Your task to perform on an android device: Open Youtube and go to "Your channel" Image 0: 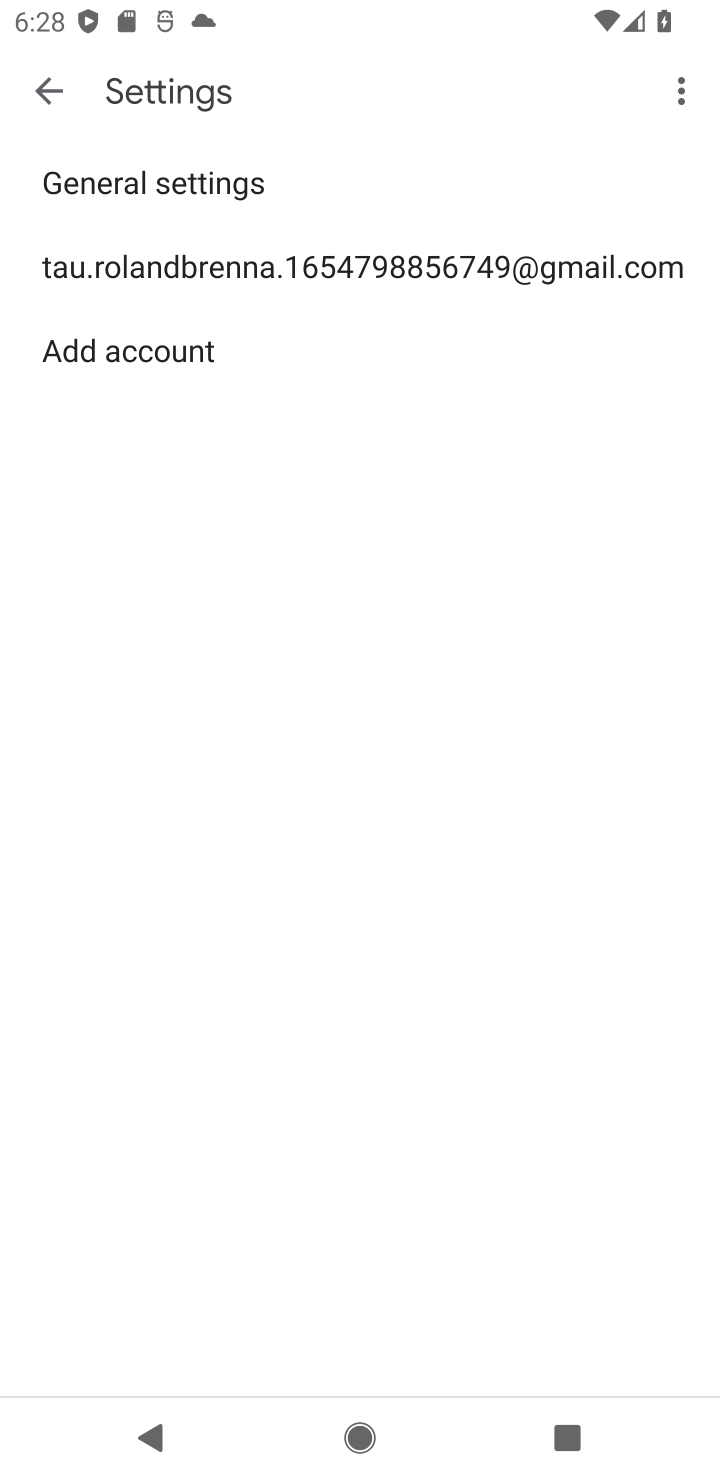
Step 0: press home button
Your task to perform on an android device: Open Youtube and go to "Your channel" Image 1: 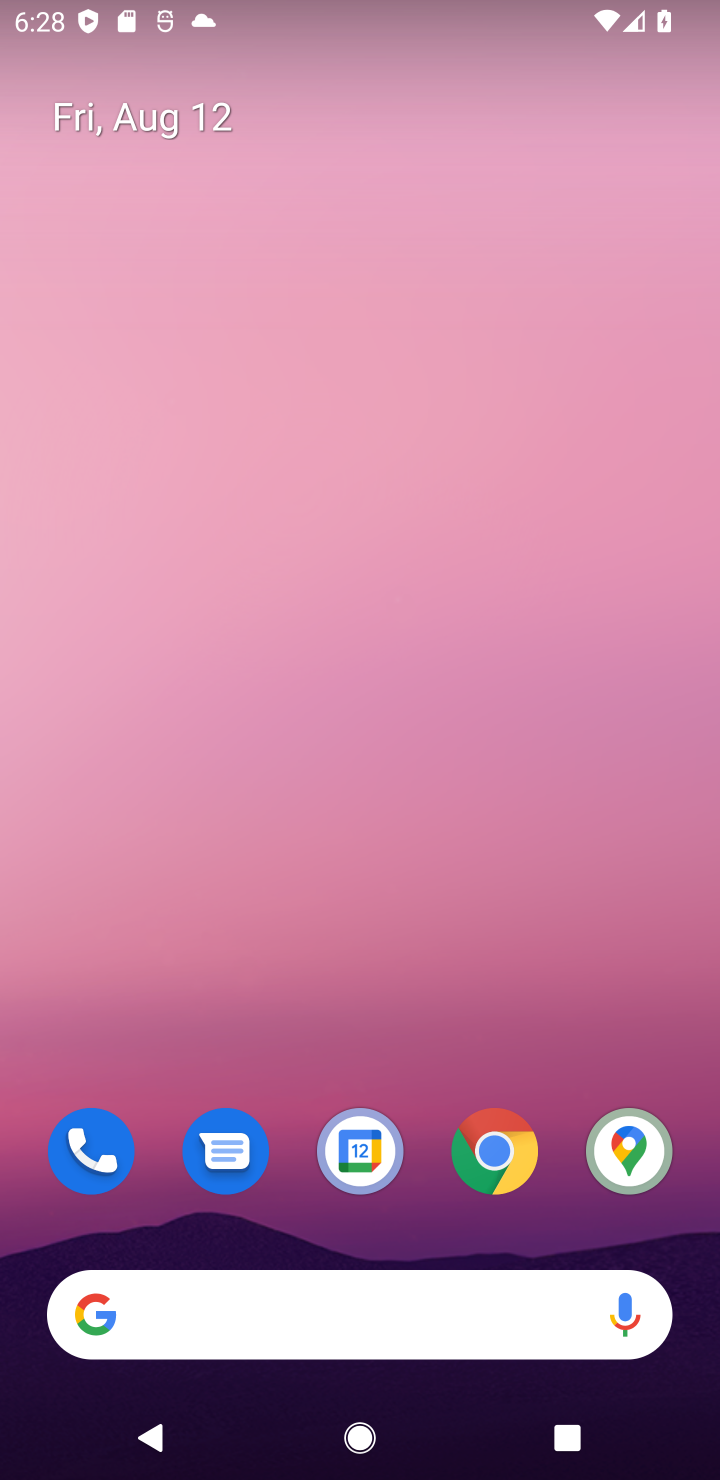
Step 1: drag from (249, 821) to (284, 201)
Your task to perform on an android device: Open Youtube and go to "Your channel" Image 2: 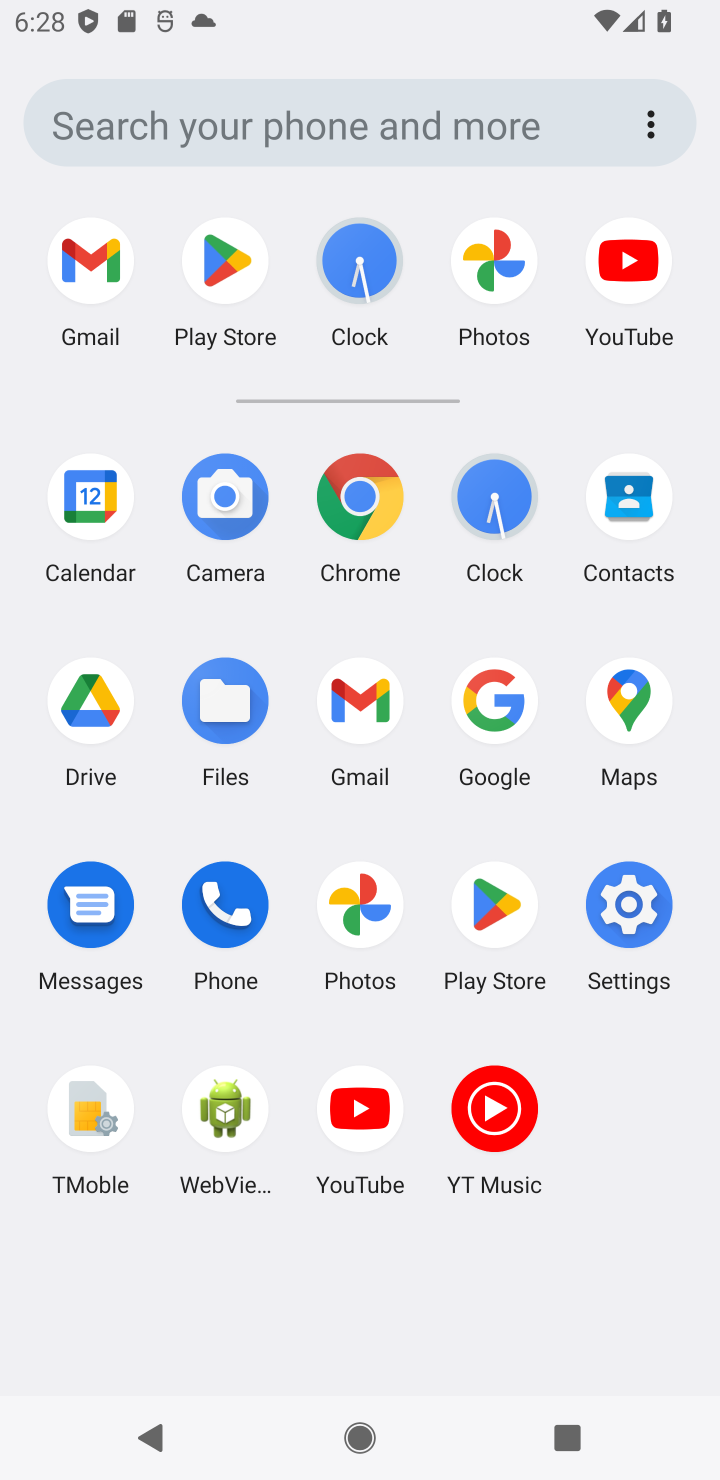
Step 2: click (347, 1108)
Your task to perform on an android device: Open Youtube and go to "Your channel" Image 3: 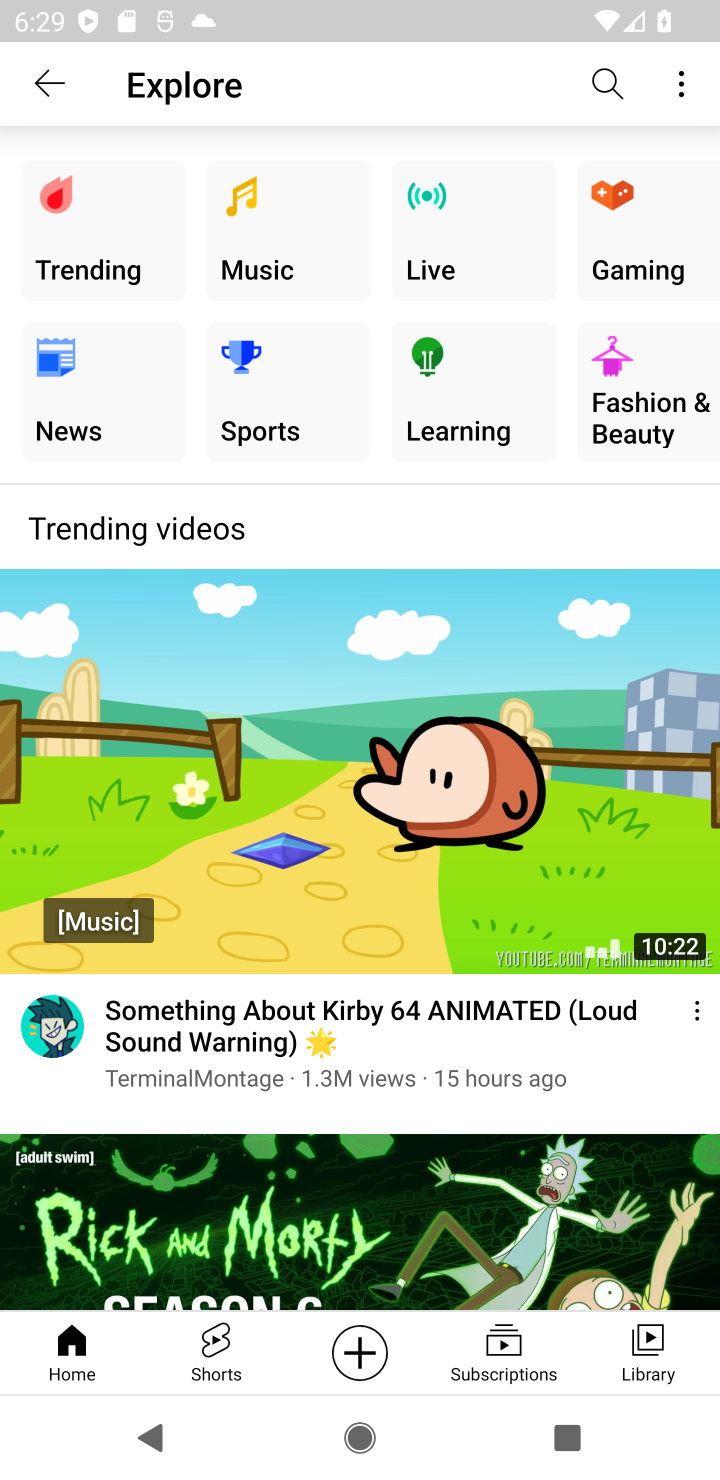
Step 3: press back button
Your task to perform on an android device: Open Youtube and go to "Your channel" Image 4: 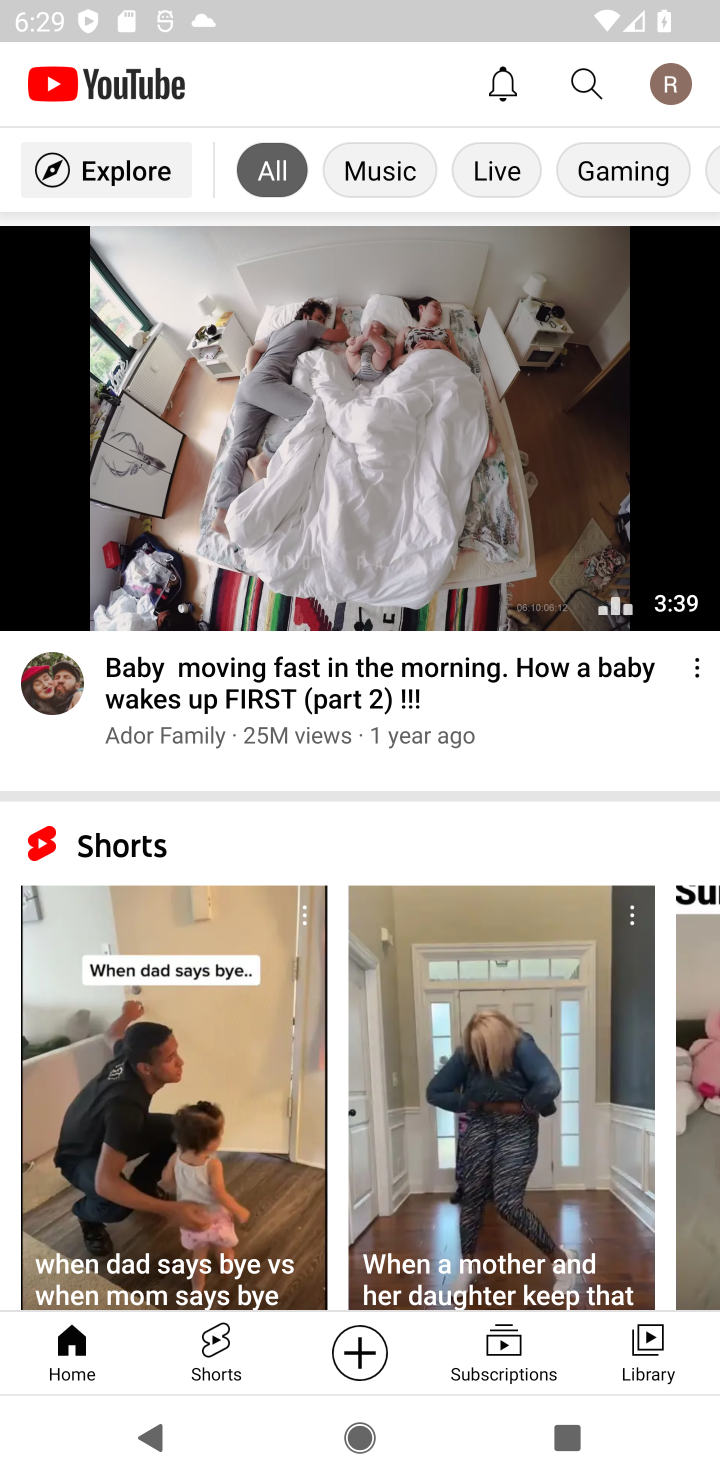
Step 4: click (666, 68)
Your task to perform on an android device: Open Youtube and go to "Your channel" Image 5: 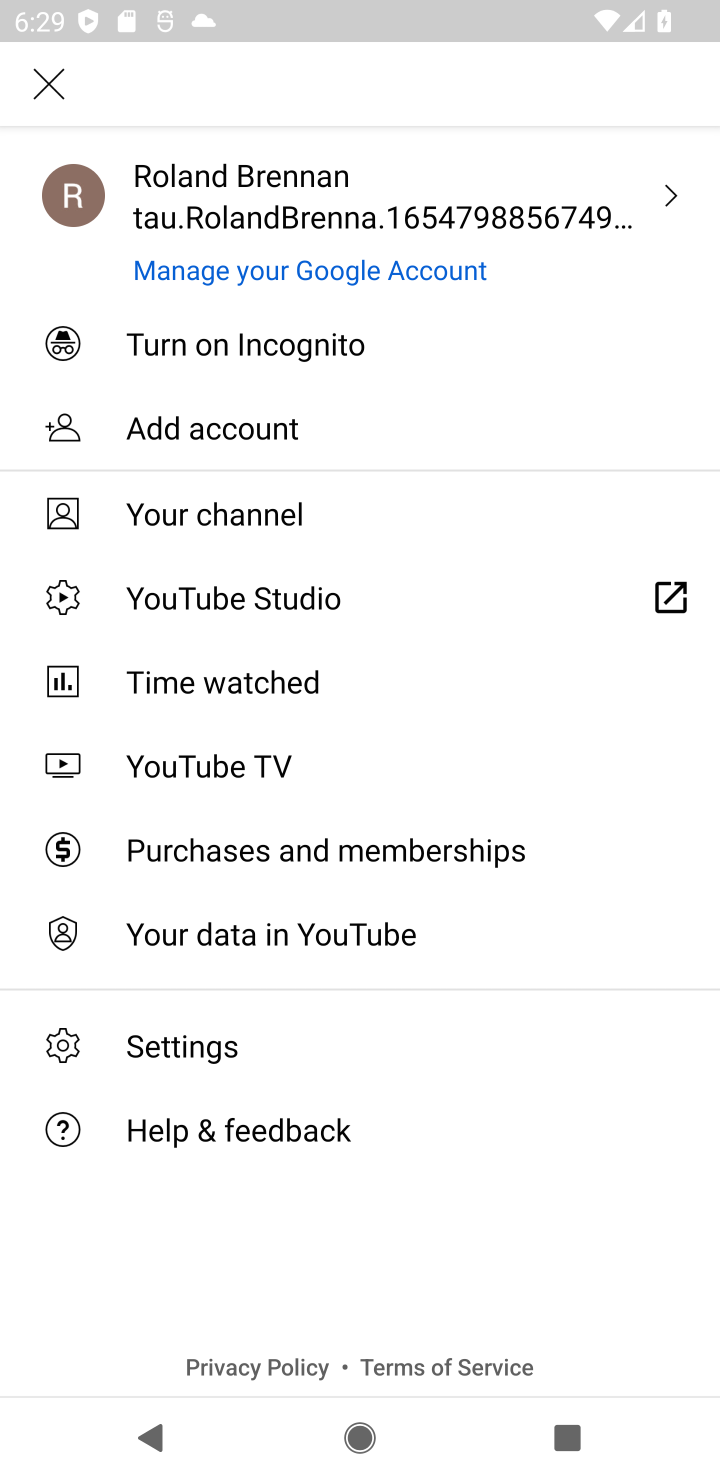
Step 5: click (276, 525)
Your task to perform on an android device: Open Youtube and go to "Your channel" Image 6: 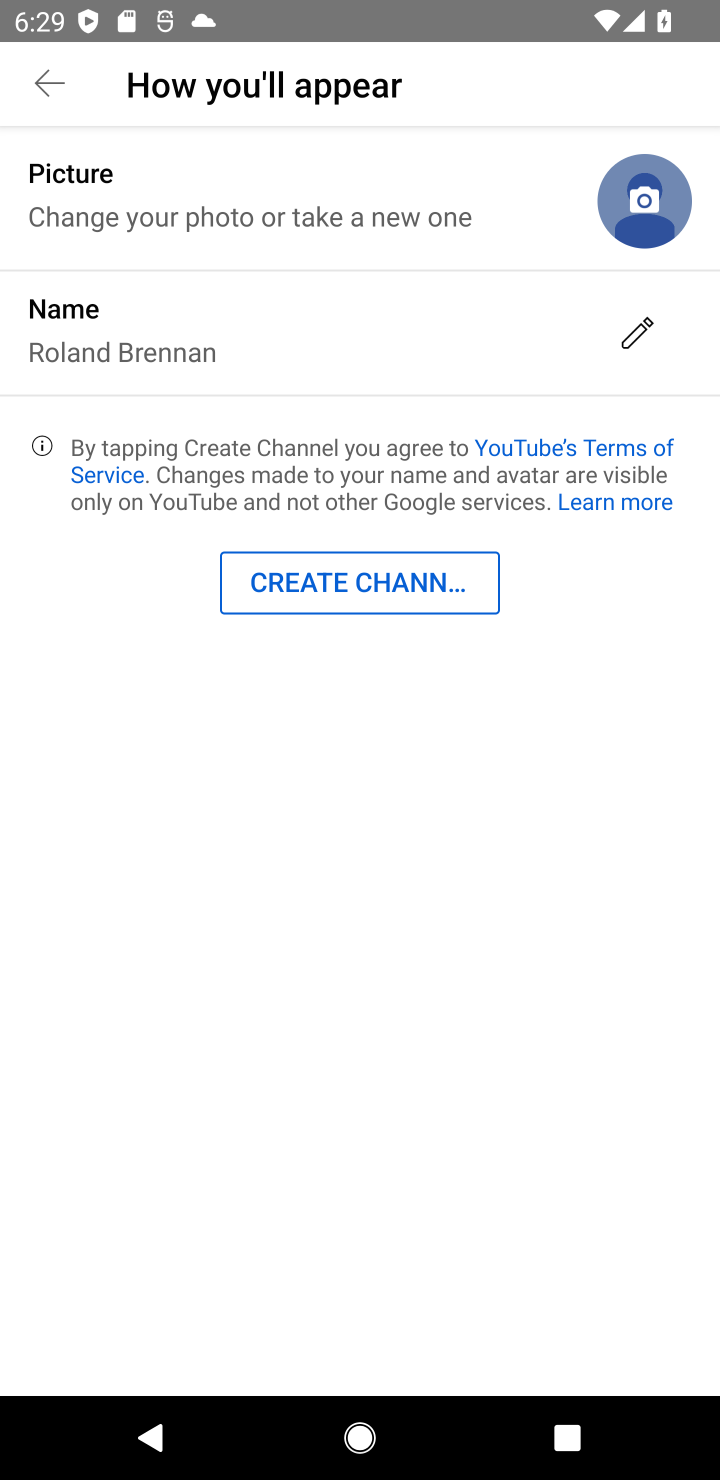
Step 6: task complete